Your task to perform on an android device: set the timer Image 0: 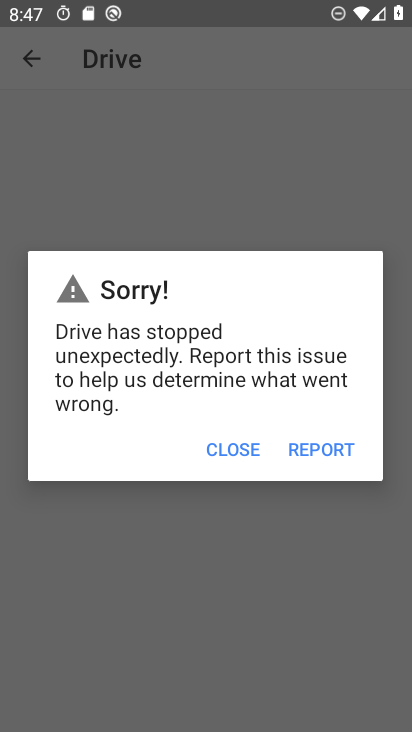
Step 0: press home button
Your task to perform on an android device: set the timer Image 1: 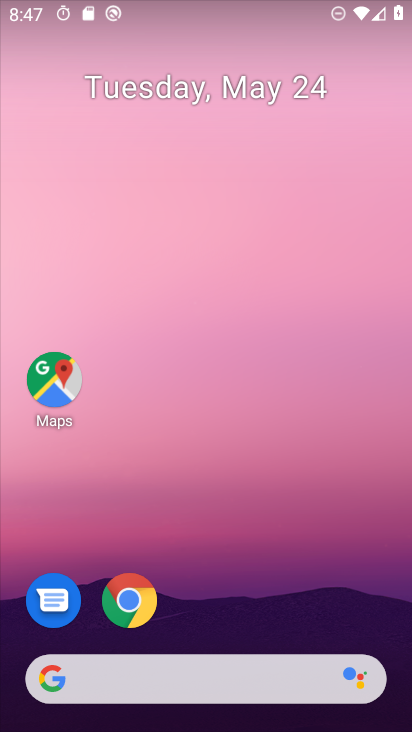
Step 1: drag from (236, 591) to (271, 16)
Your task to perform on an android device: set the timer Image 2: 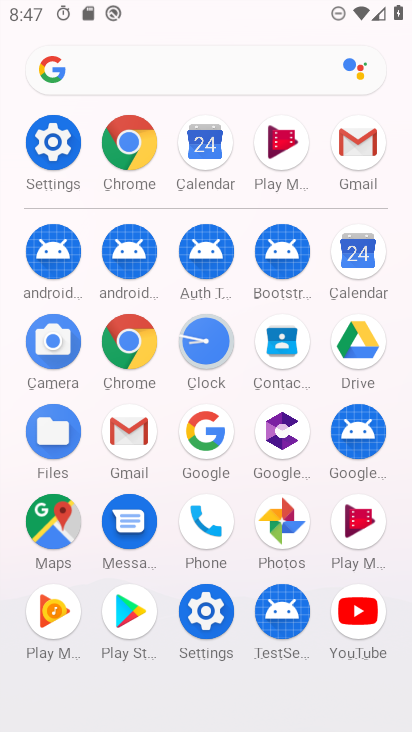
Step 2: click (216, 340)
Your task to perform on an android device: set the timer Image 3: 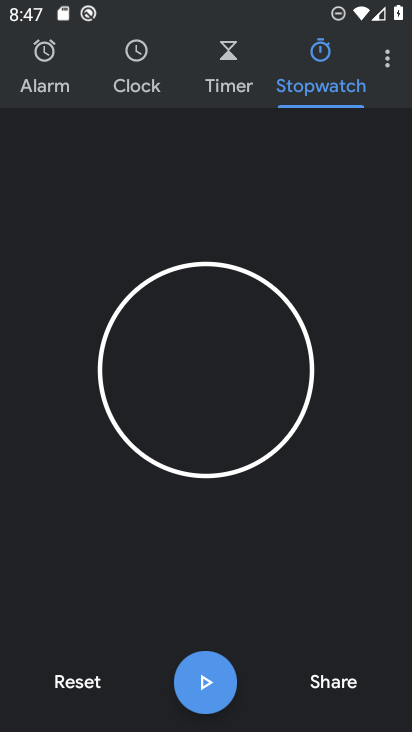
Step 3: click (236, 62)
Your task to perform on an android device: set the timer Image 4: 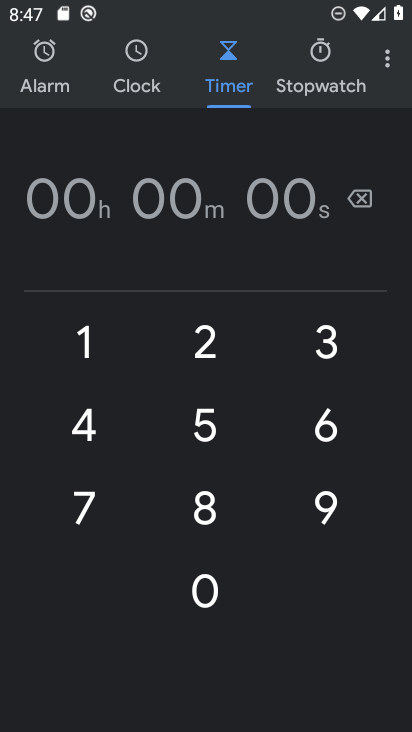
Step 4: click (179, 402)
Your task to perform on an android device: set the timer Image 5: 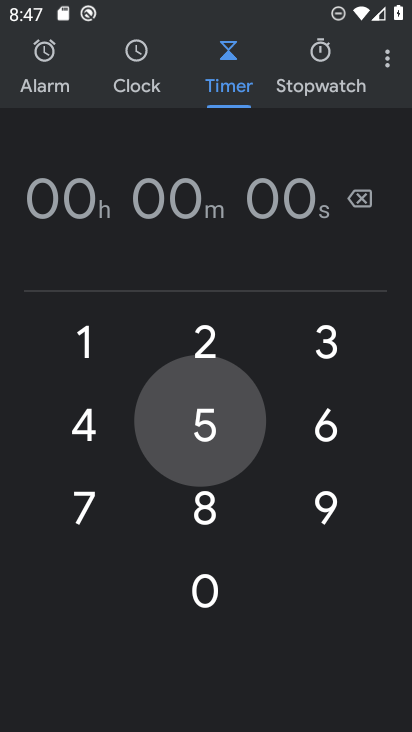
Step 5: click (231, 356)
Your task to perform on an android device: set the timer Image 6: 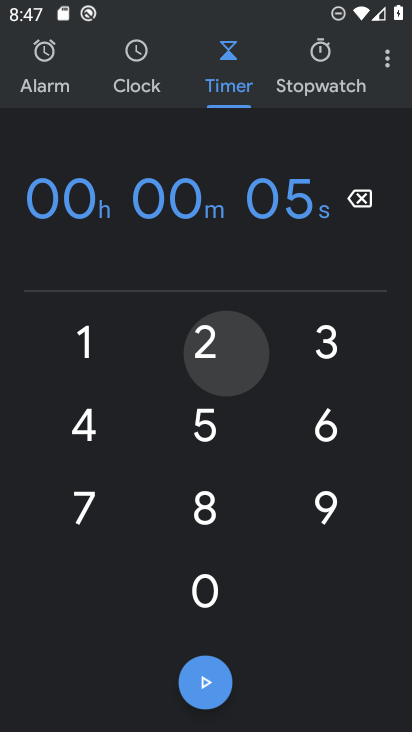
Step 6: click (294, 340)
Your task to perform on an android device: set the timer Image 7: 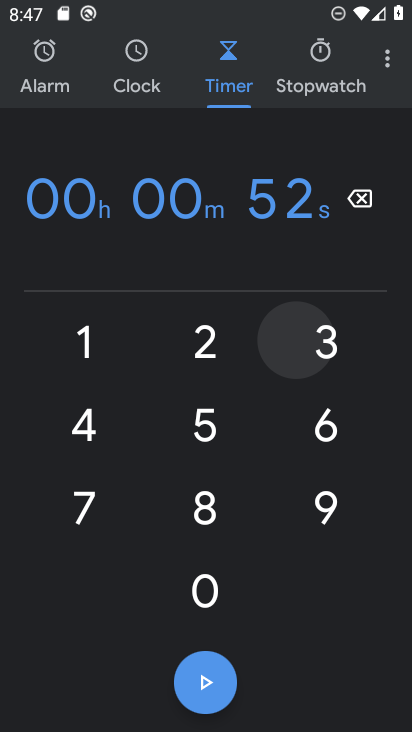
Step 7: click (196, 388)
Your task to perform on an android device: set the timer Image 8: 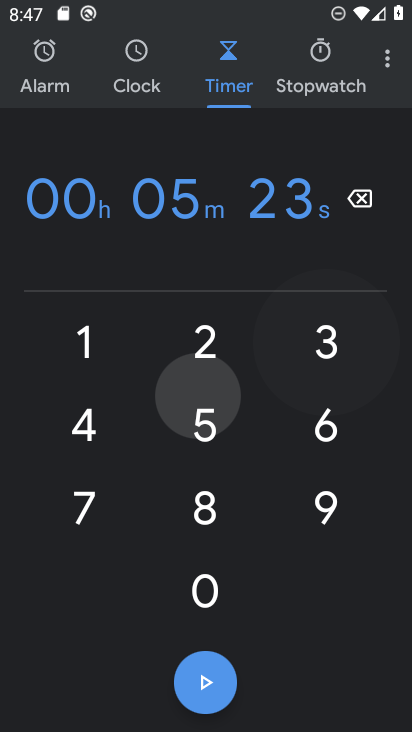
Step 8: click (208, 364)
Your task to perform on an android device: set the timer Image 9: 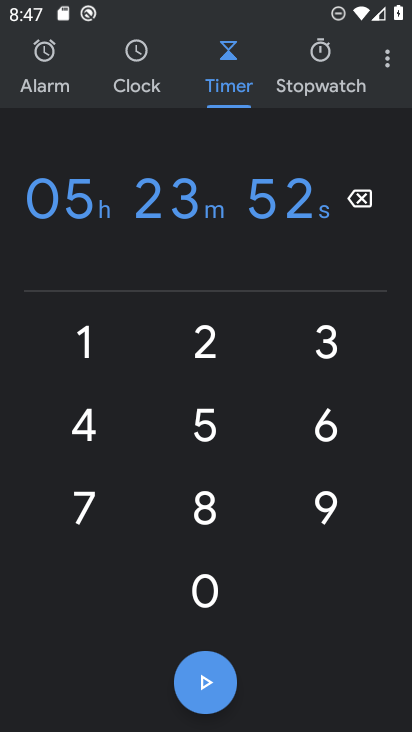
Step 9: click (206, 699)
Your task to perform on an android device: set the timer Image 10: 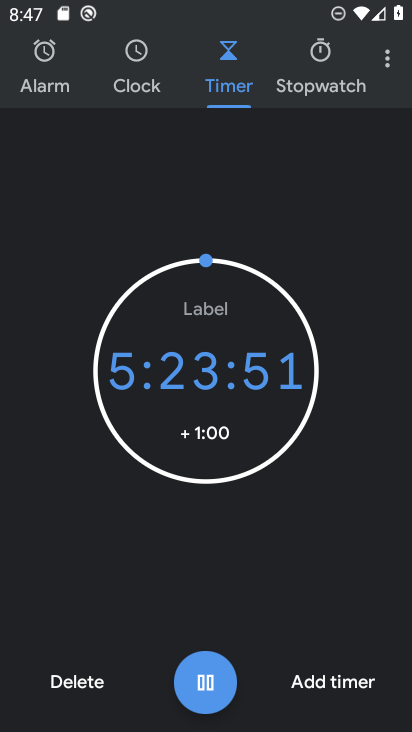
Step 10: task complete